Your task to perform on an android device: turn off airplane mode Image 0: 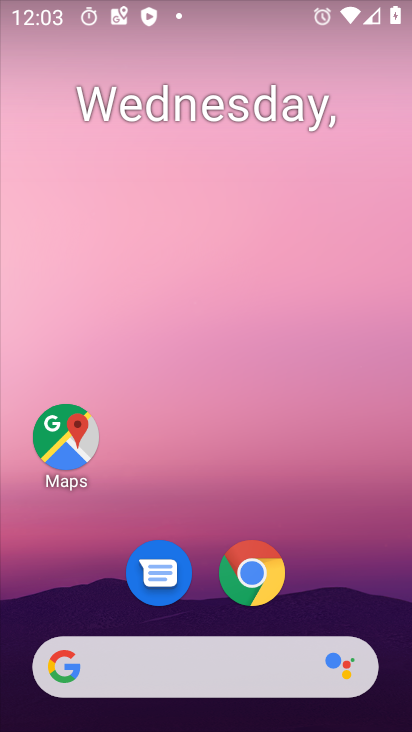
Step 0: drag from (274, 704) to (322, 348)
Your task to perform on an android device: turn off airplane mode Image 1: 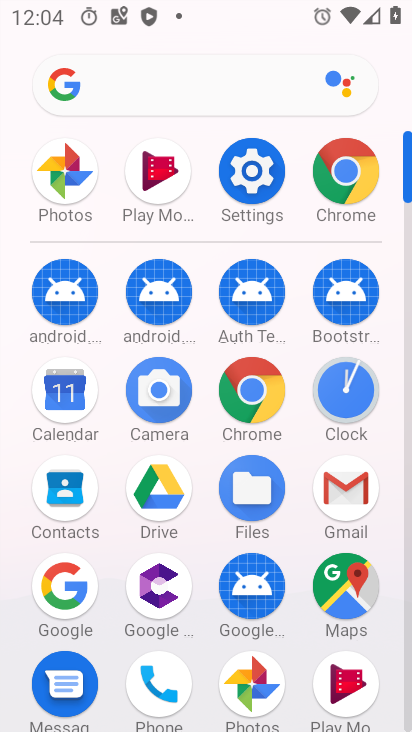
Step 1: click (255, 188)
Your task to perform on an android device: turn off airplane mode Image 2: 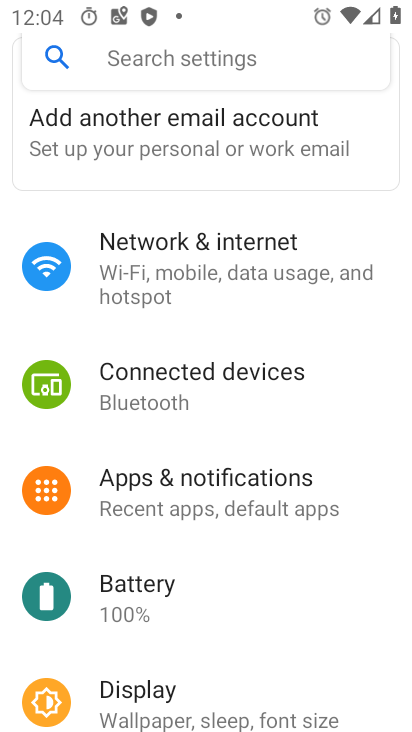
Step 2: click (173, 263)
Your task to perform on an android device: turn off airplane mode Image 3: 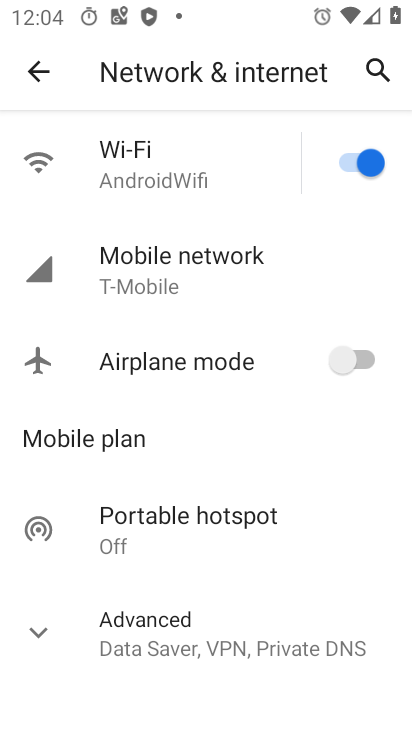
Step 3: click (322, 360)
Your task to perform on an android device: turn off airplane mode Image 4: 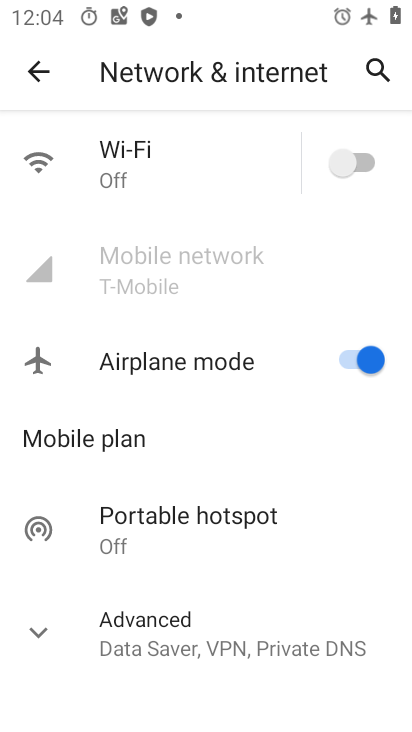
Step 4: click (321, 356)
Your task to perform on an android device: turn off airplane mode Image 5: 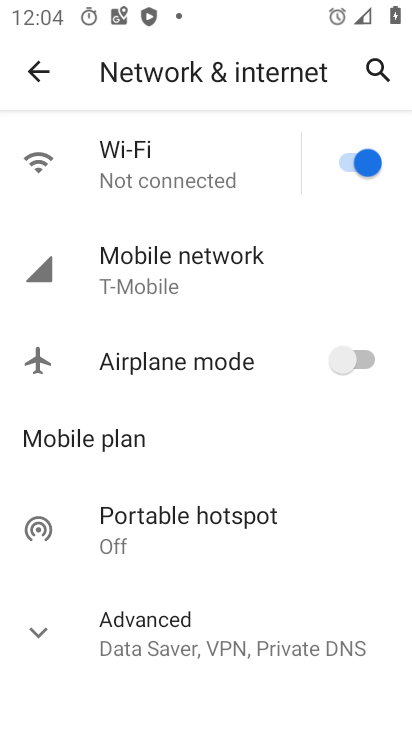
Step 5: task complete